Your task to perform on an android device: Open the calendar app, open the side menu, and click the "Day" option Image 0: 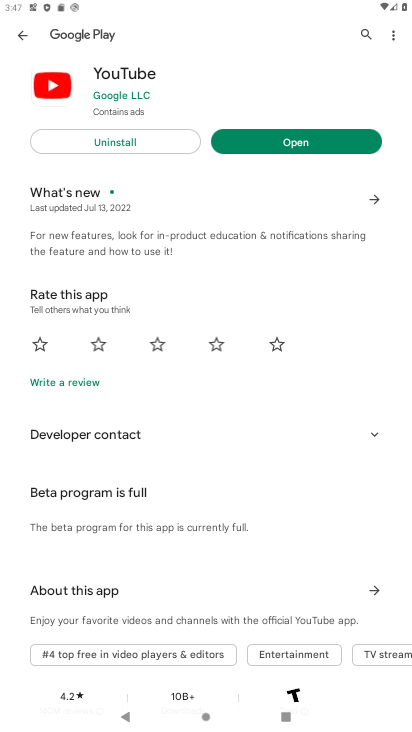
Step 0: press home button
Your task to perform on an android device: Open the calendar app, open the side menu, and click the "Day" option Image 1: 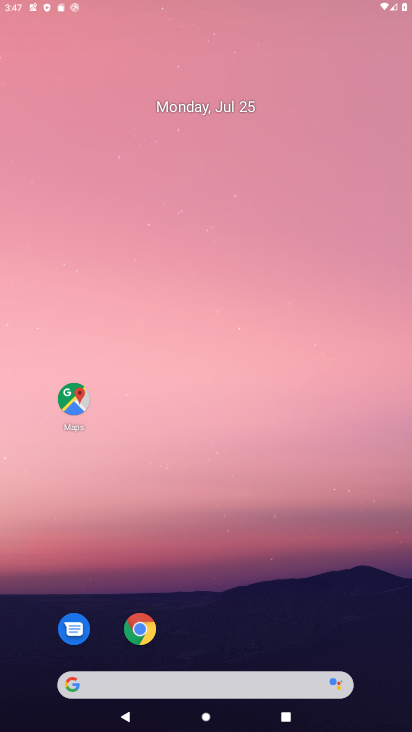
Step 1: drag from (234, 648) to (302, 27)
Your task to perform on an android device: Open the calendar app, open the side menu, and click the "Day" option Image 2: 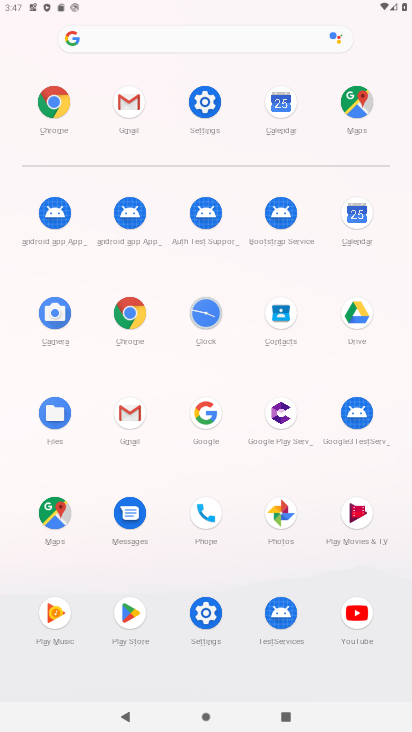
Step 2: click (359, 218)
Your task to perform on an android device: Open the calendar app, open the side menu, and click the "Day" option Image 3: 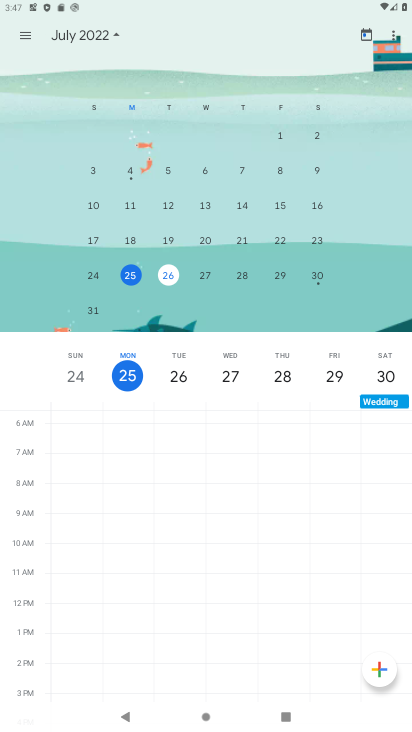
Step 3: click (23, 36)
Your task to perform on an android device: Open the calendar app, open the side menu, and click the "Day" option Image 4: 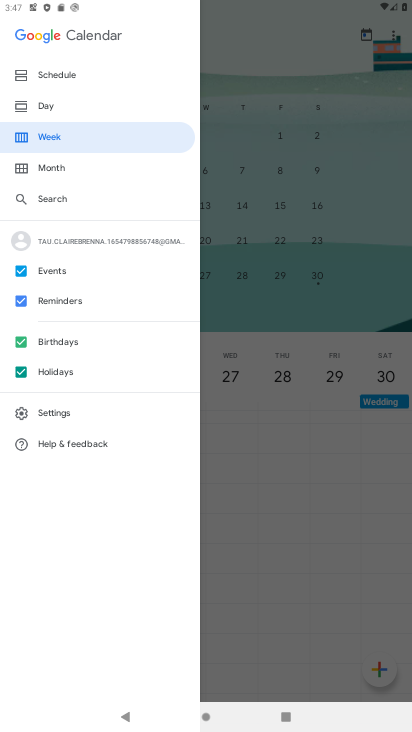
Step 4: click (47, 105)
Your task to perform on an android device: Open the calendar app, open the side menu, and click the "Day" option Image 5: 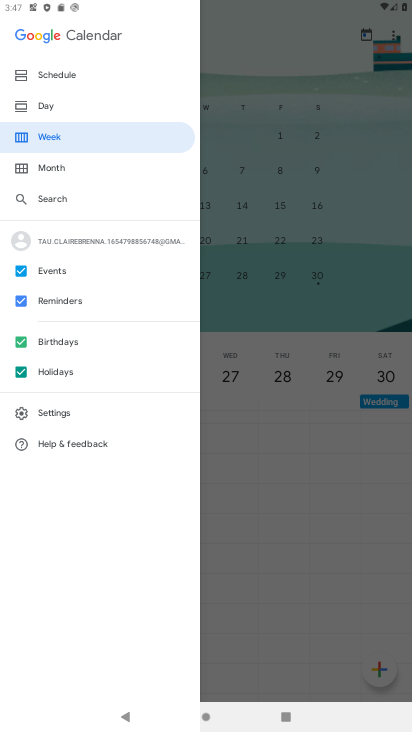
Step 5: task complete